Your task to perform on an android device: install app "ZOOM Cloud Meetings" Image 0: 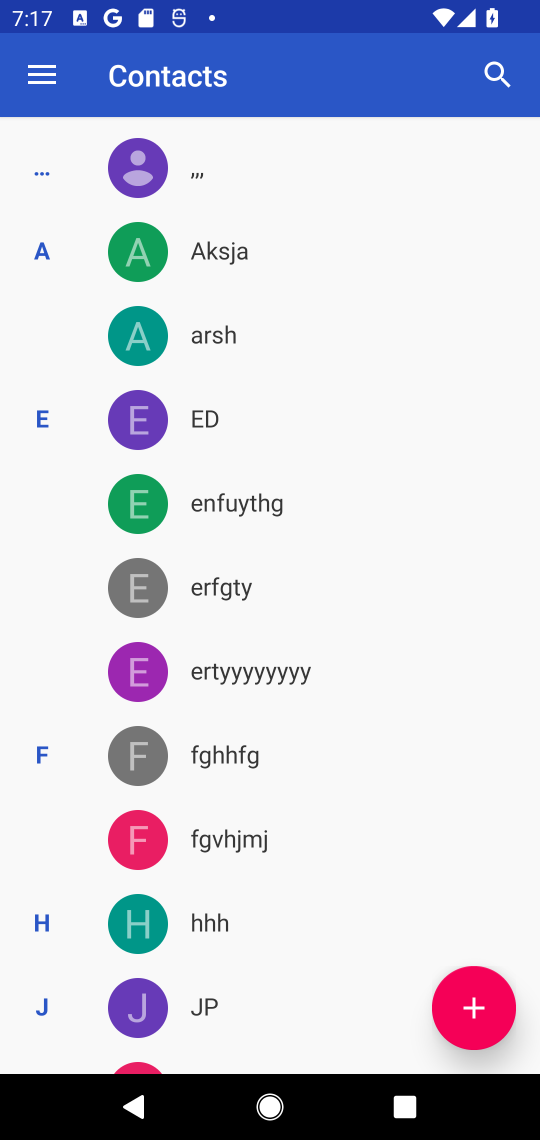
Step 0: press home button
Your task to perform on an android device: install app "ZOOM Cloud Meetings" Image 1: 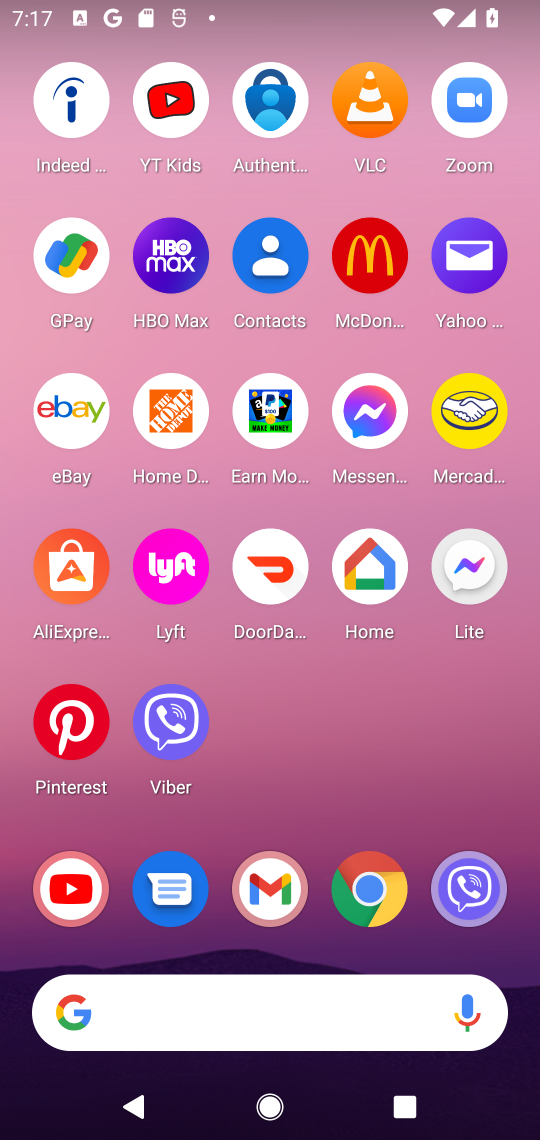
Step 1: press home button
Your task to perform on an android device: install app "ZOOM Cloud Meetings" Image 2: 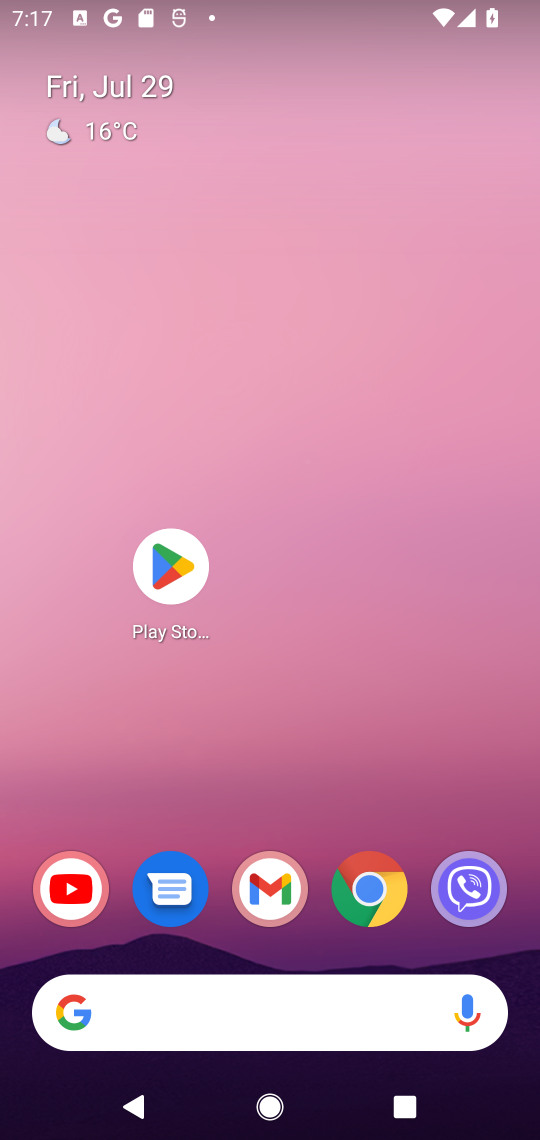
Step 2: click (173, 562)
Your task to perform on an android device: install app "ZOOM Cloud Meetings" Image 3: 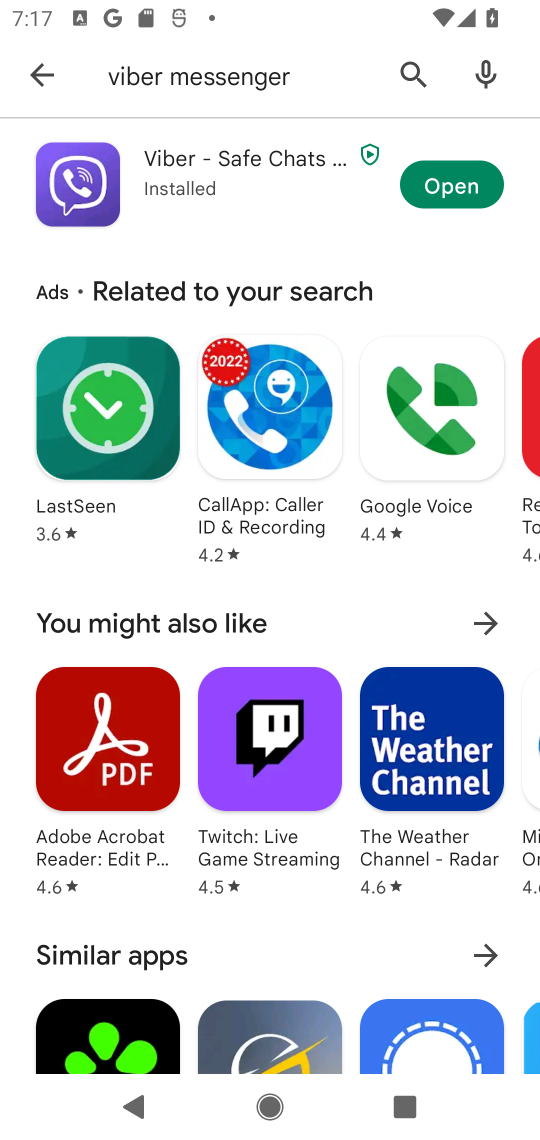
Step 3: click (407, 73)
Your task to perform on an android device: install app "ZOOM Cloud Meetings" Image 4: 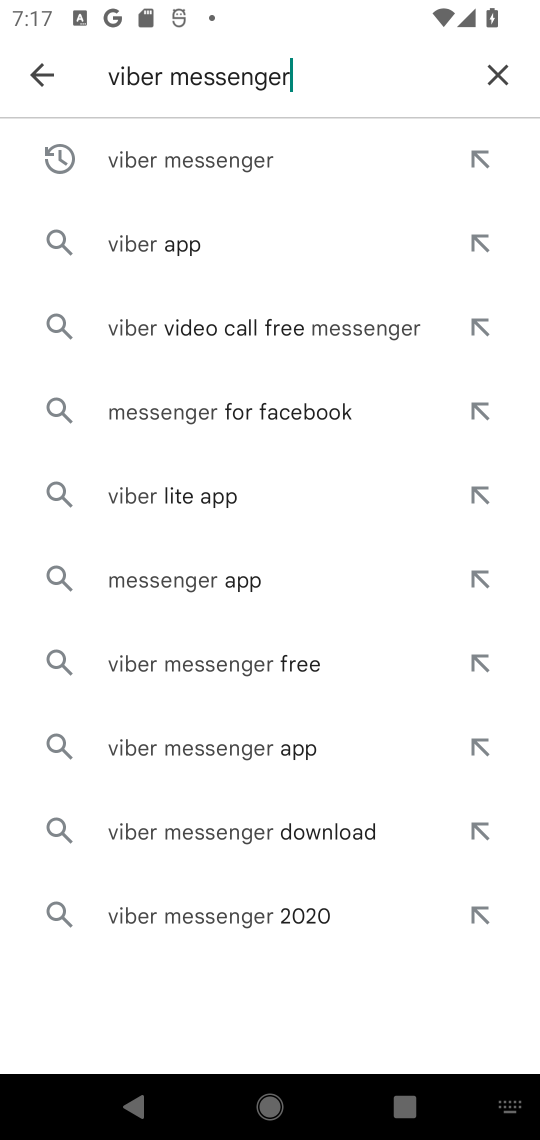
Step 4: click (496, 73)
Your task to perform on an android device: install app "ZOOM Cloud Meetings" Image 5: 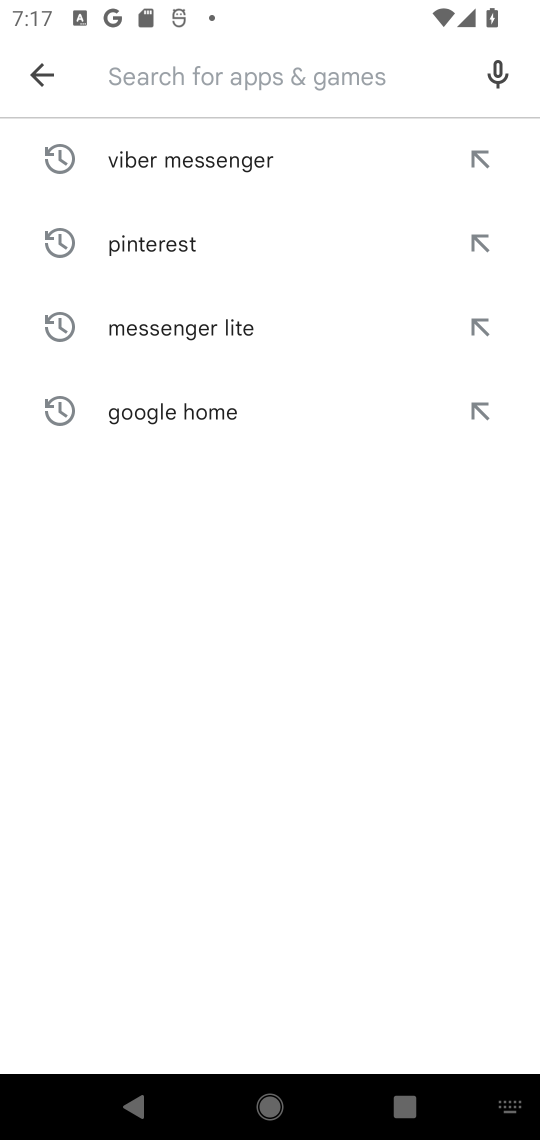
Step 5: type "ZOOM Cloud Meetings"
Your task to perform on an android device: install app "ZOOM Cloud Meetings" Image 6: 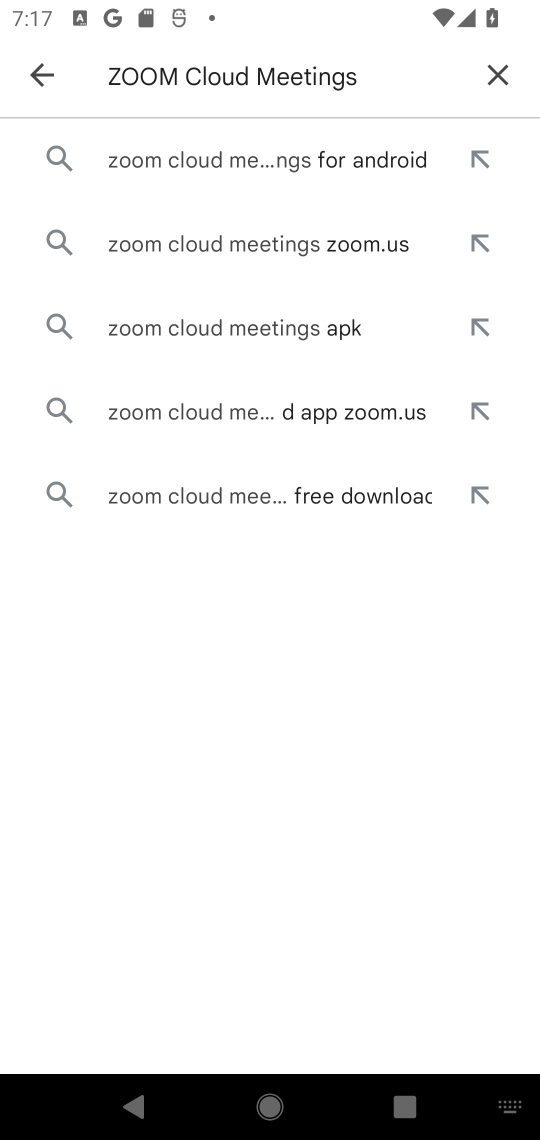
Step 6: click (261, 164)
Your task to perform on an android device: install app "ZOOM Cloud Meetings" Image 7: 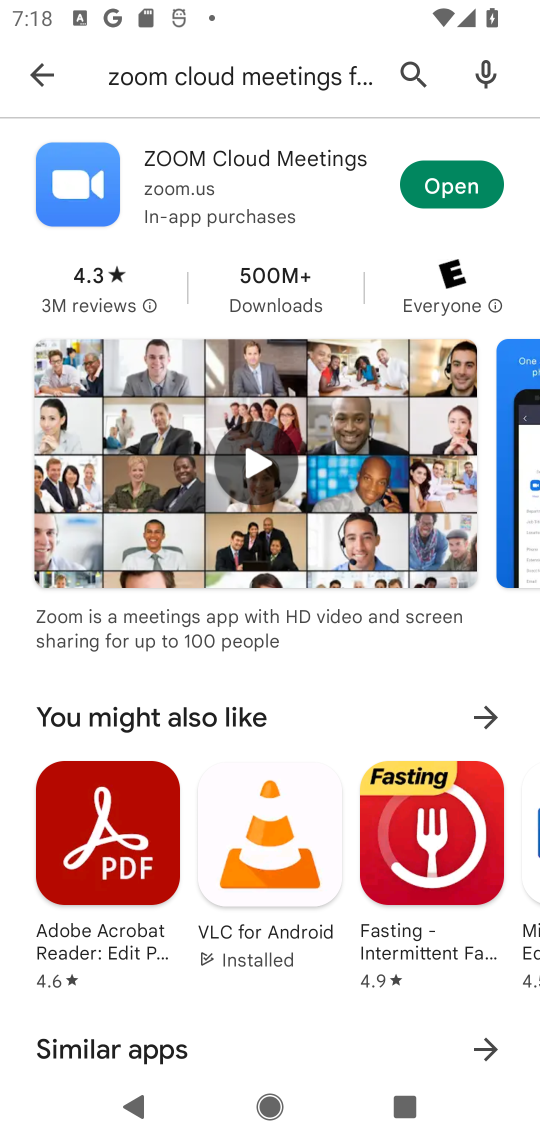
Step 7: task complete